Your task to perform on an android device: Show the shopping cart on ebay. Search for dell alienware on ebay, select the first entry, add it to the cart, then select checkout. Image 0: 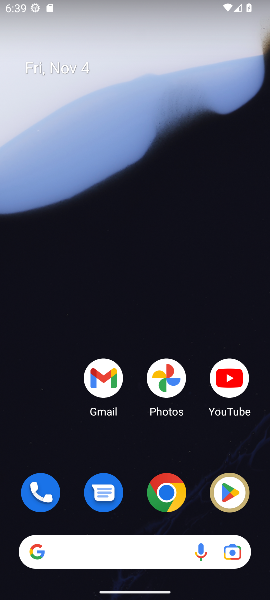
Step 0: drag from (130, 458) to (179, 82)
Your task to perform on an android device: Show the shopping cart on ebay. Search for dell alienware on ebay, select the first entry, add it to the cart, then select checkout. Image 1: 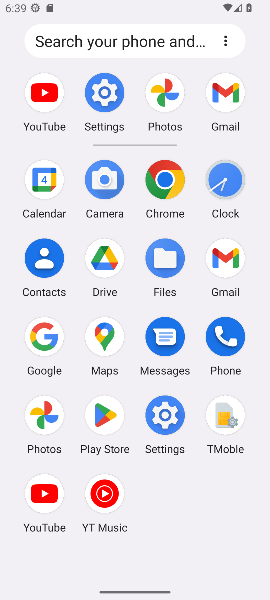
Step 1: click (163, 177)
Your task to perform on an android device: Show the shopping cart on ebay. Search for dell alienware on ebay, select the first entry, add it to the cart, then select checkout. Image 2: 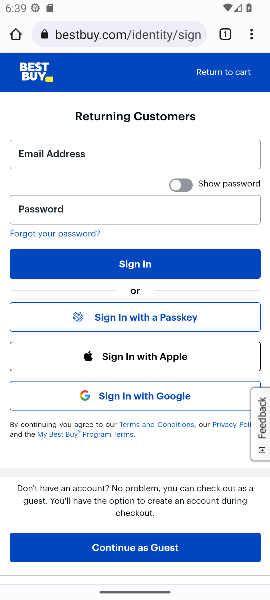
Step 2: click (129, 40)
Your task to perform on an android device: Show the shopping cart on ebay. Search for dell alienware on ebay, select the first entry, add it to the cart, then select checkout. Image 3: 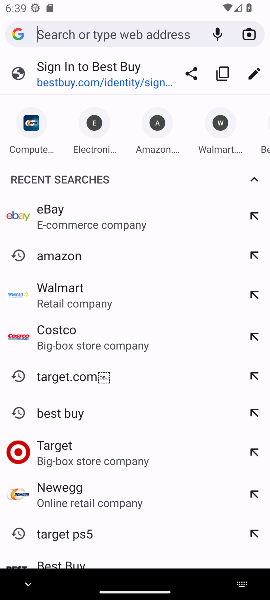
Step 3: type "ebay.com"
Your task to perform on an android device: Show the shopping cart on ebay. Search for dell alienware on ebay, select the first entry, add it to the cart, then select checkout. Image 4: 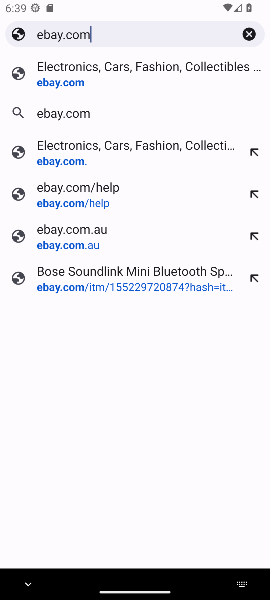
Step 4: press enter
Your task to perform on an android device: Show the shopping cart on ebay. Search for dell alienware on ebay, select the first entry, add it to the cart, then select checkout. Image 5: 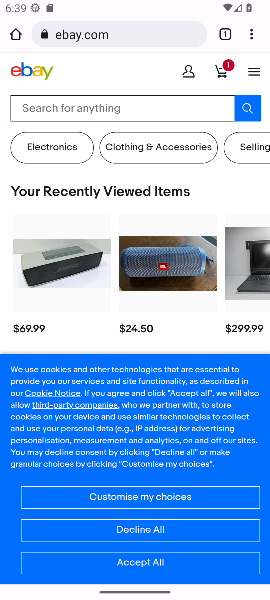
Step 5: click (223, 66)
Your task to perform on an android device: Show the shopping cart on ebay. Search for dell alienware on ebay, select the first entry, add it to the cart, then select checkout. Image 6: 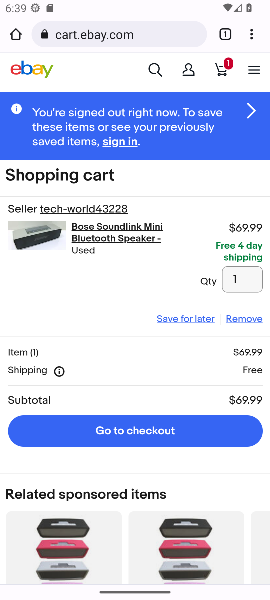
Step 6: click (154, 69)
Your task to perform on an android device: Show the shopping cart on ebay. Search for dell alienware on ebay, select the first entry, add it to the cart, then select checkout. Image 7: 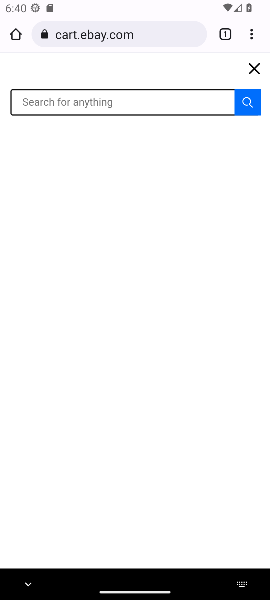
Step 7: type "dell alienware"
Your task to perform on an android device: Show the shopping cart on ebay. Search for dell alienware on ebay, select the first entry, add it to the cart, then select checkout. Image 8: 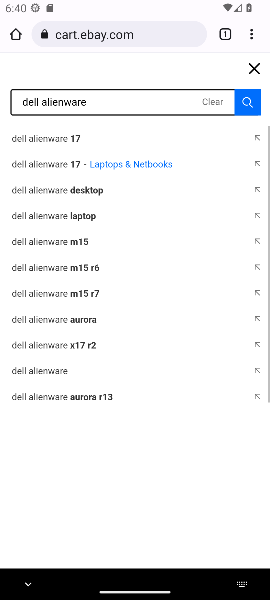
Step 8: press enter
Your task to perform on an android device: Show the shopping cart on ebay. Search for dell alienware on ebay, select the first entry, add it to the cart, then select checkout. Image 9: 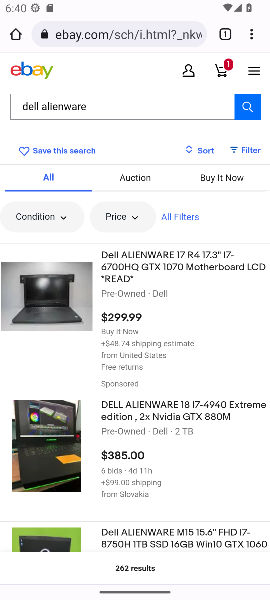
Step 9: click (127, 269)
Your task to perform on an android device: Show the shopping cart on ebay. Search for dell alienware on ebay, select the first entry, add it to the cart, then select checkout. Image 10: 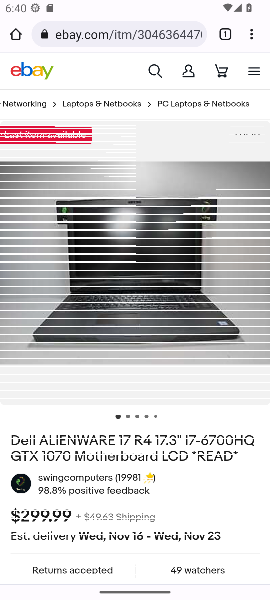
Step 10: drag from (130, 426) to (130, 118)
Your task to perform on an android device: Show the shopping cart on ebay. Search for dell alienware on ebay, select the first entry, add it to the cart, then select checkout. Image 11: 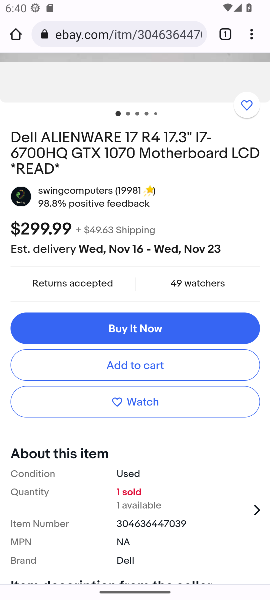
Step 11: click (165, 364)
Your task to perform on an android device: Show the shopping cart on ebay. Search for dell alienware on ebay, select the first entry, add it to the cart, then select checkout. Image 12: 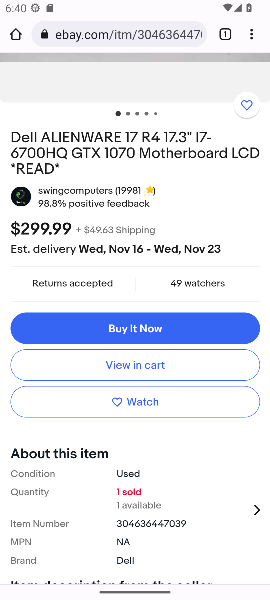
Step 12: click (183, 372)
Your task to perform on an android device: Show the shopping cart on ebay. Search for dell alienware on ebay, select the first entry, add it to the cart, then select checkout. Image 13: 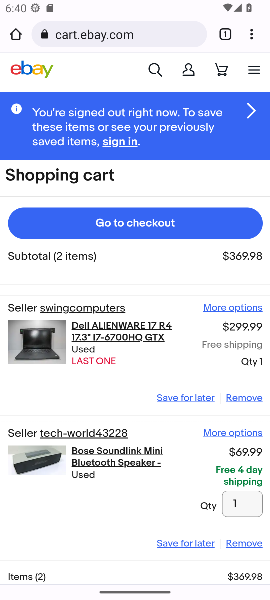
Step 13: click (146, 230)
Your task to perform on an android device: Show the shopping cart on ebay. Search for dell alienware on ebay, select the first entry, add it to the cart, then select checkout. Image 14: 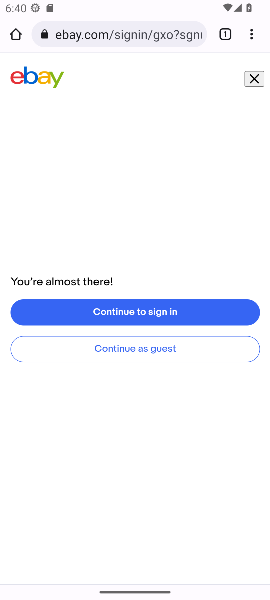
Step 14: task complete